Your task to perform on an android device: Open Wikipedia Image 0: 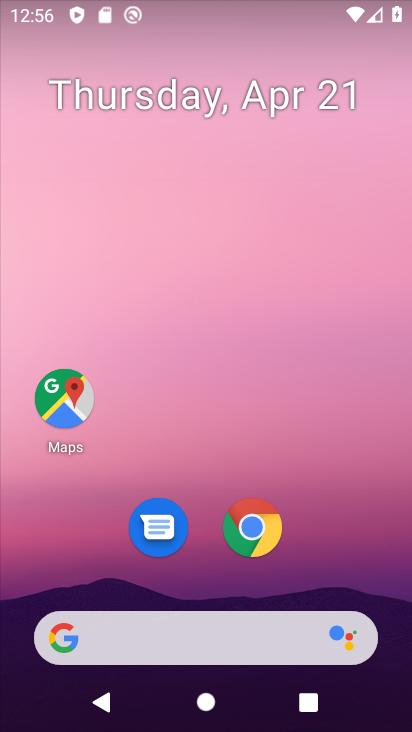
Step 0: drag from (337, 557) to (334, 91)
Your task to perform on an android device: Open Wikipedia Image 1: 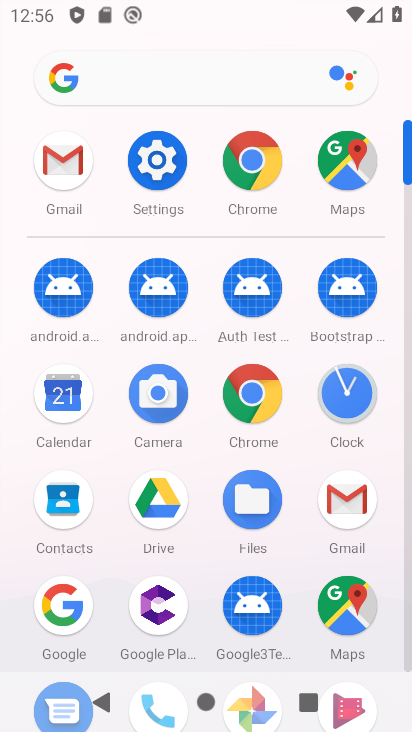
Step 1: click (263, 397)
Your task to perform on an android device: Open Wikipedia Image 2: 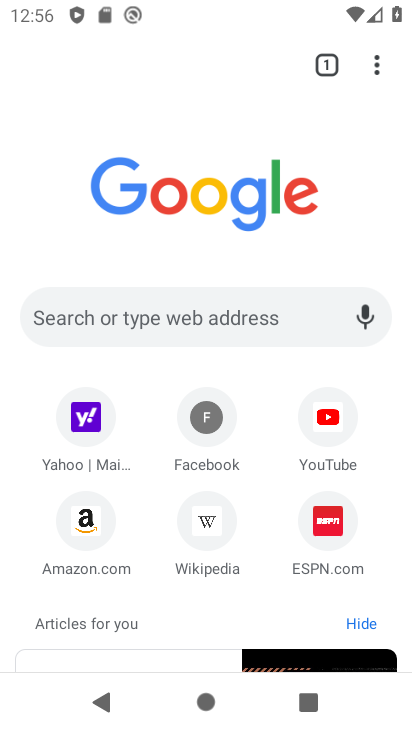
Step 2: click (222, 526)
Your task to perform on an android device: Open Wikipedia Image 3: 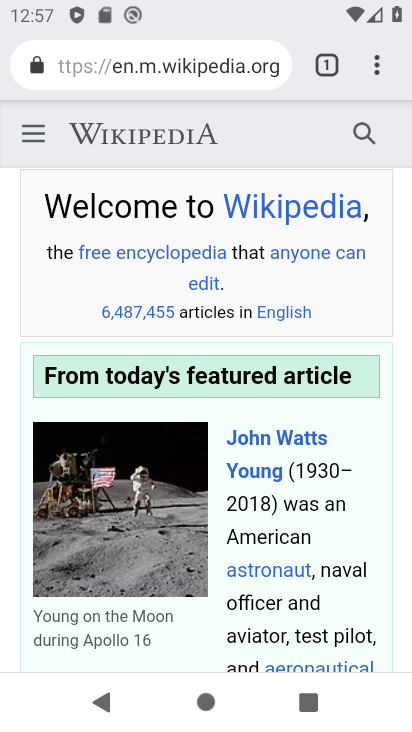
Step 3: task complete